Your task to perform on an android device: Go to wifi settings Image 0: 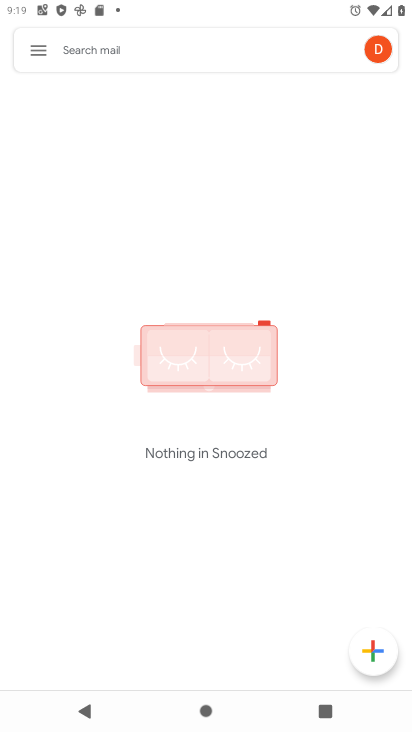
Step 0: press home button
Your task to perform on an android device: Go to wifi settings Image 1: 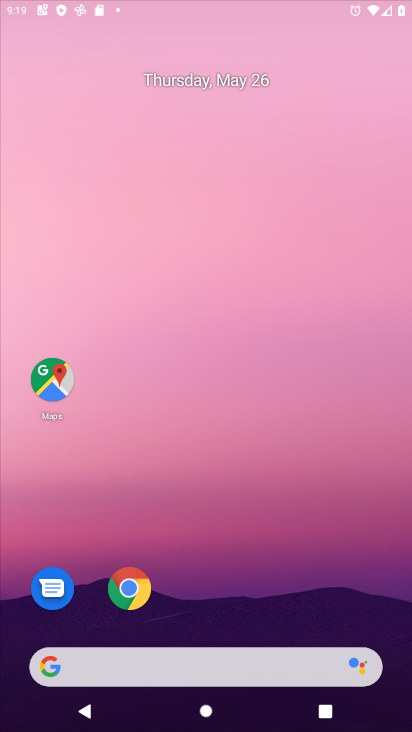
Step 1: drag from (359, 616) to (280, 42)
Your task to perform on an android device: Go to wifi settings Image 2: 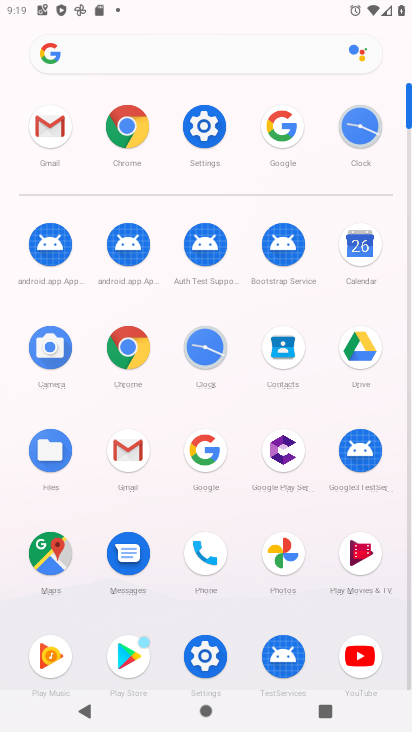
Step 2: click (206, 135)
Your task to perform on an android device: Go to wifi settings Image 3: 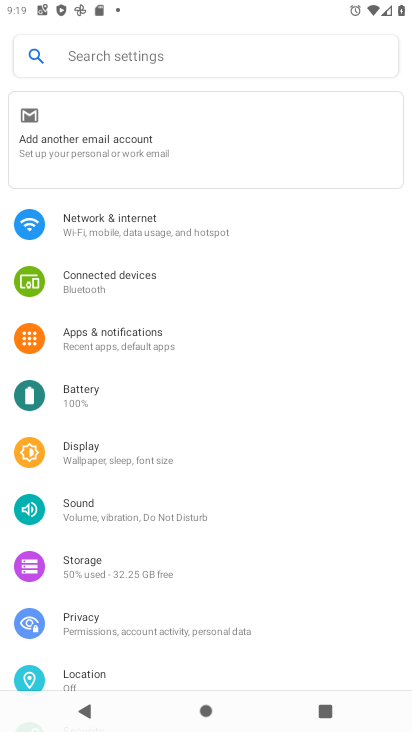
Step 3: click (137, 248)
Your task to perform on an android device: Go to wifi settings Image 4: 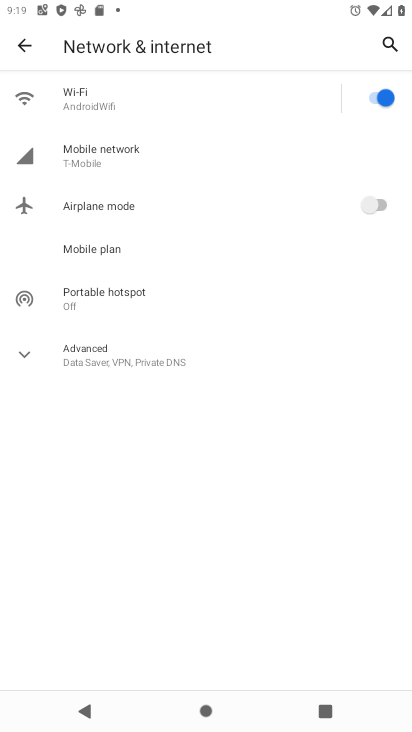
Step 4: click (154, 92)
Your task to perform on an android device: Go to wifi settings Image 5: 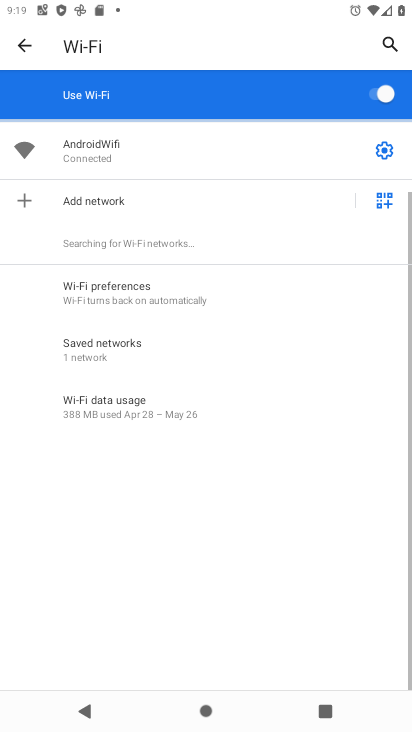
Step 5: task complete